Your task to perform on an android device: turn off wifi Image 0: 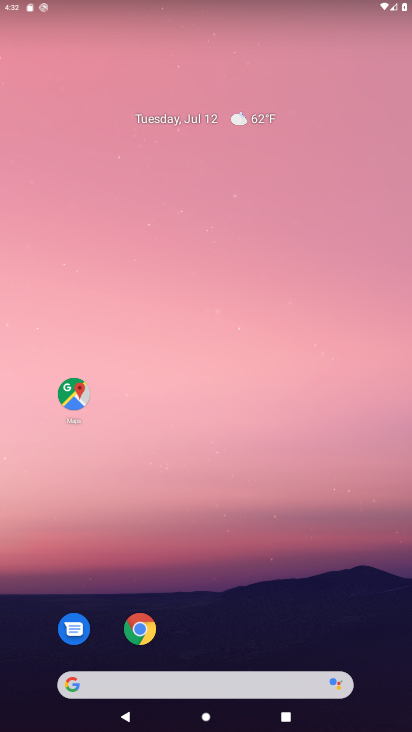
Step 0: drag from (288, 631) to (266, 140)
Your task to perform on an android device: turn off wifi Image 1: 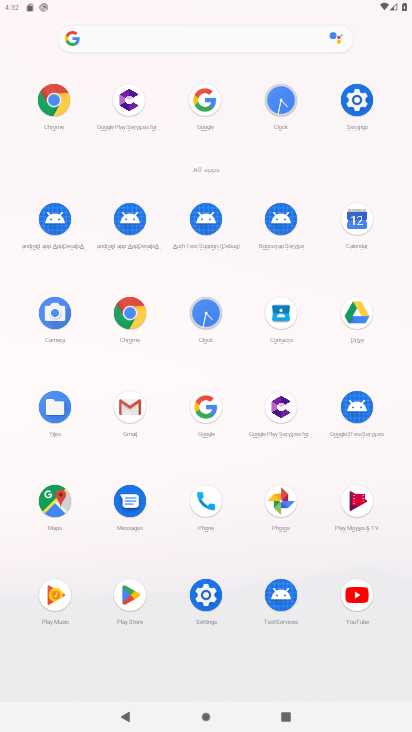
Step 1: click (375, 108)
Your task to perform on an android device: turn off wifi Image 2: 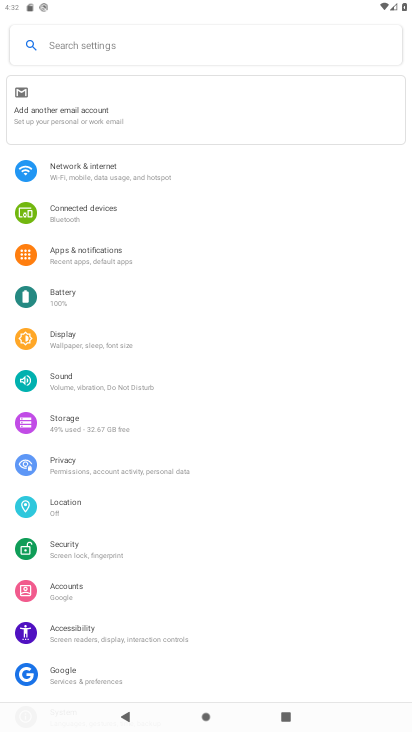
Step 2: click (73, 179)
Your task to perform on an android device: turn off wifi Image 3: 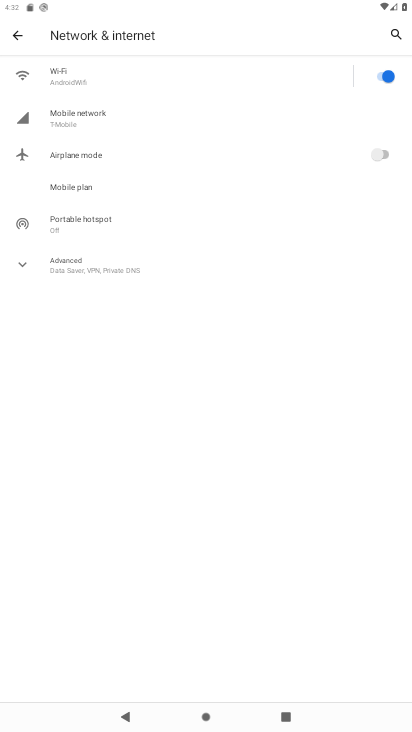
Step 3: click (392, 79)
Your task to perform on an android device: turn off wifi Image 4: 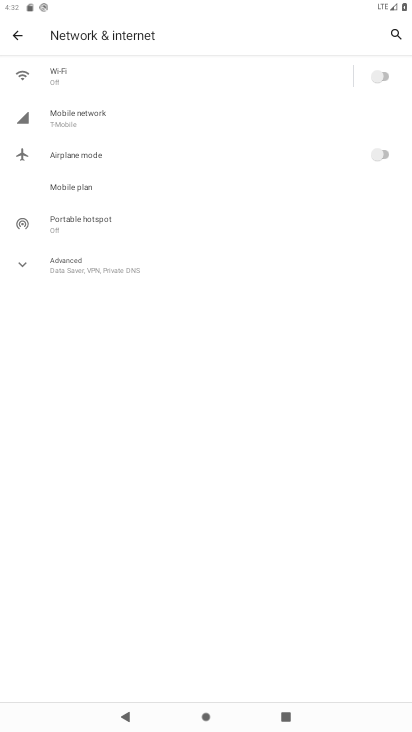
Step 4: task complete